Your task to perform on an android device: add a label to a message in the gmail app Image 0: 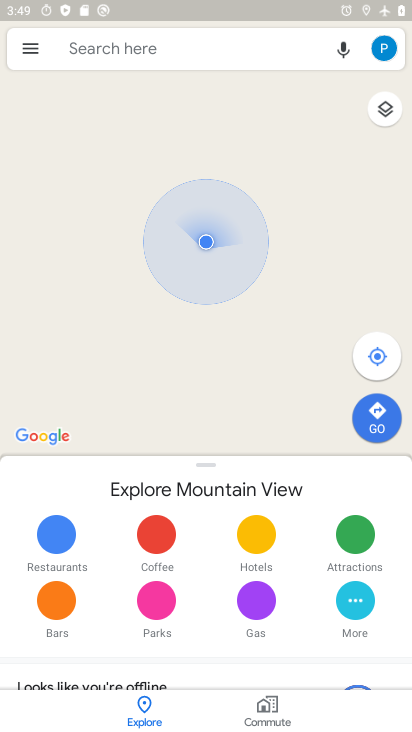
Step 0: press home button
Your task to perform on an android device: add a label to a message in the gmail app Image 1: 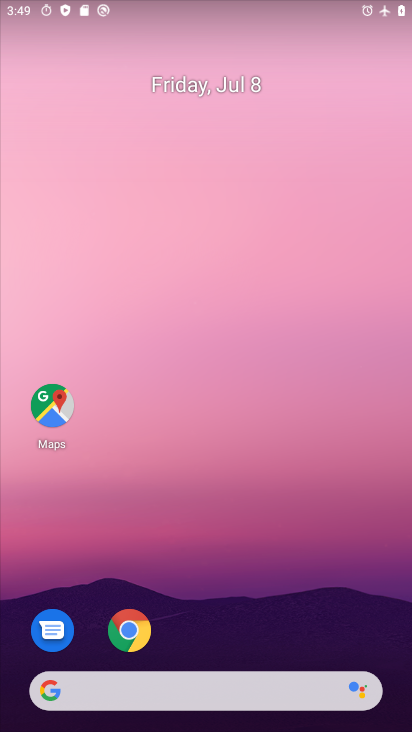
Step 1: drag from (288, 537) to (315, 169)
Your task to perform on an android device: add a label to a message in the gmail app Image 2: 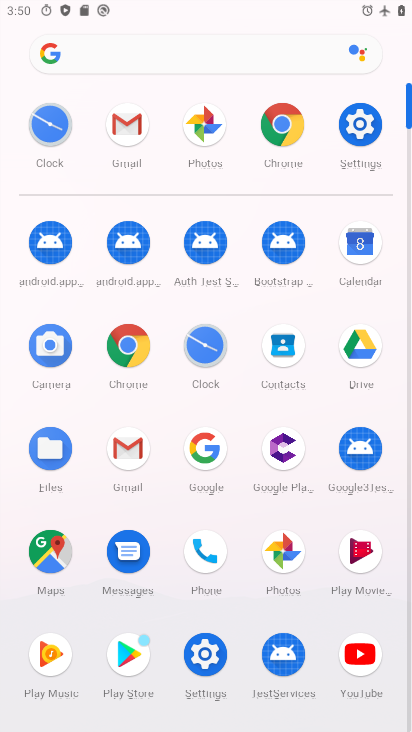
Step 2: drag from (254, 476) to (292, 245)
Your task to perform on an android device: add a label to a message in the gmail app Image 3: 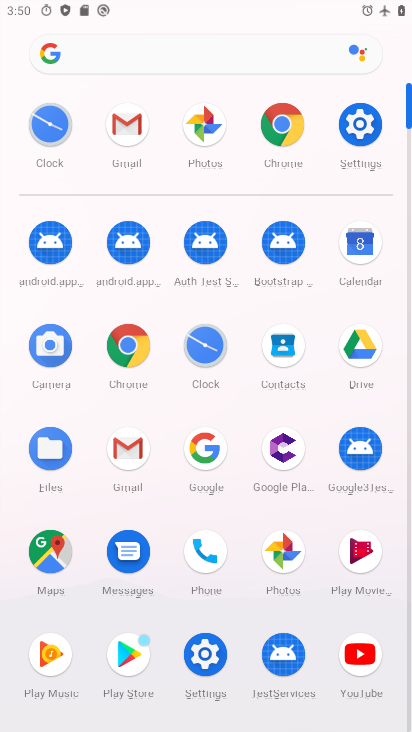
Step 3: click (129, 132)
Your task to perform on an android device: add a label to a message in the gmail app Image 4: 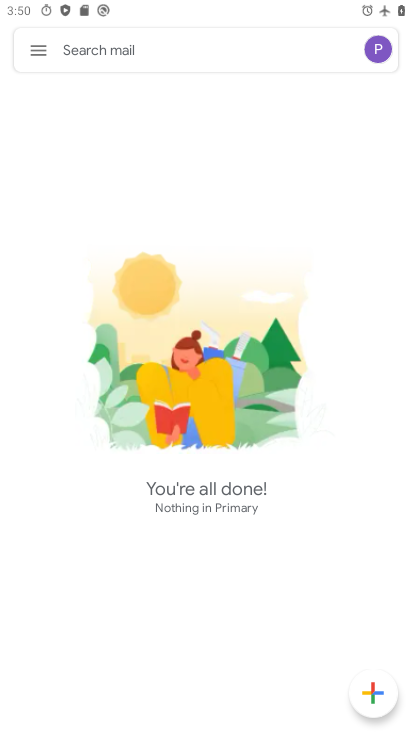
Step 4: click (35, 43)
Your task to perform on an android device: add a label to a message in the gmail app Image 5: 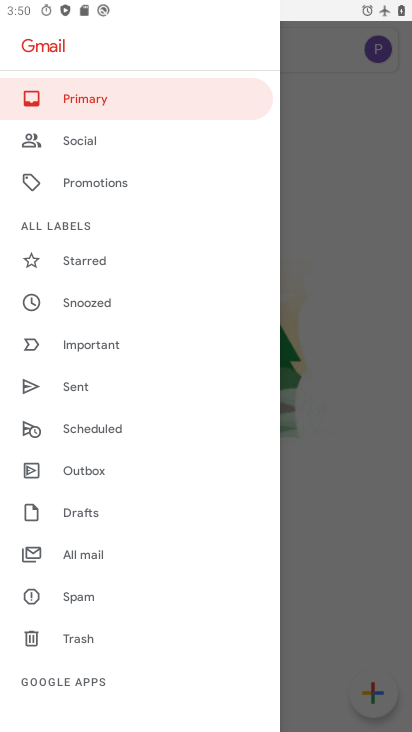
Step 5: click (331, 498)
Your task to perform on an android device: add a label to a message in the gmail app Image 6: 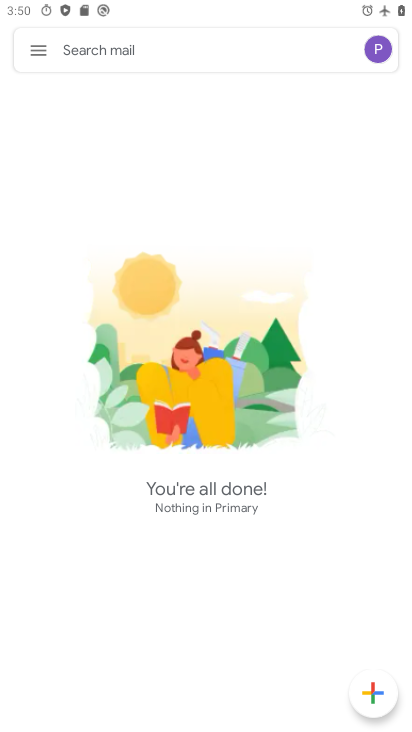
Step 6: click (35, 47)
Your task to perform on an android device: add a label to a message in the gmail app Image 7: 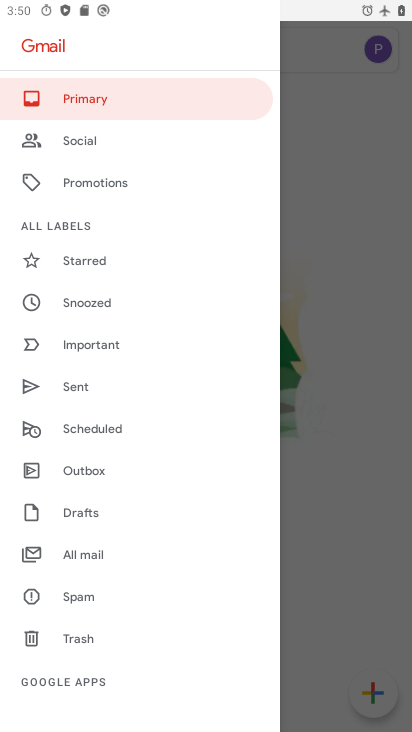
Step 7: click (313, 262)
Your task to perform on an android device: add a label to a message in the gmail app Image 8: 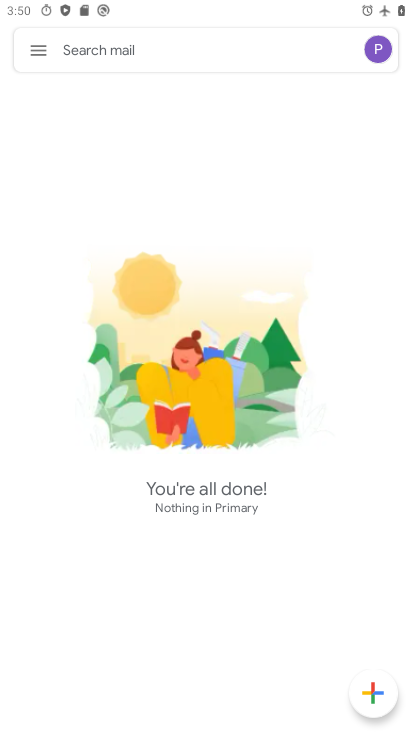
Step 8: task complete